Your task to perform on an android device: What's the weather today? Image 0: 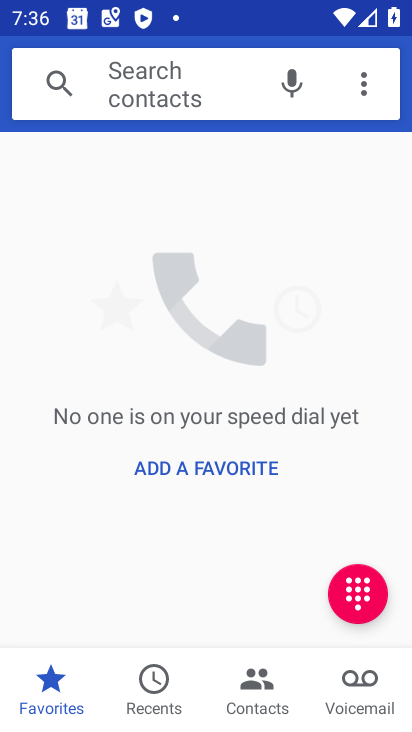
Step 0: press home button
Your task to perform on an android device: What's the weather today? Image 1: 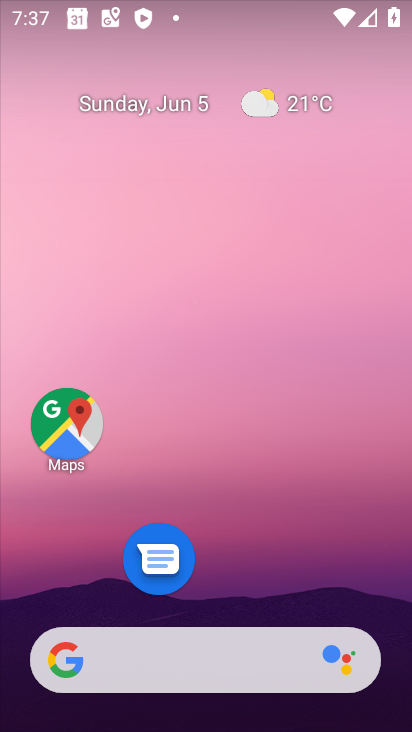
Step 1: click (99, 681)
Your task to perform on an android device: What's the weather today? Image 2: 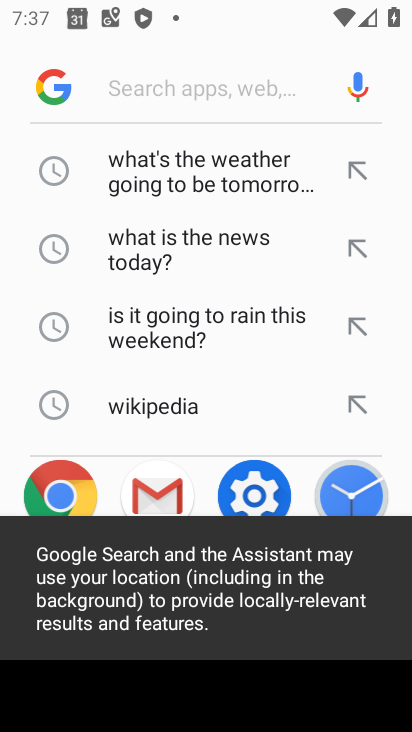
Step 2: click (178, 178)
Your task to perform on an android device: What's the weather today? Image 3: 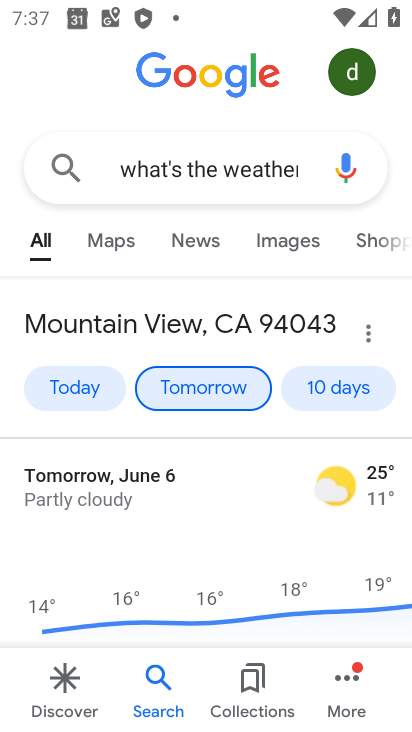
Step 3: click (69, 397)
Your task to perform on an android device: What's the weather today? Image 4: 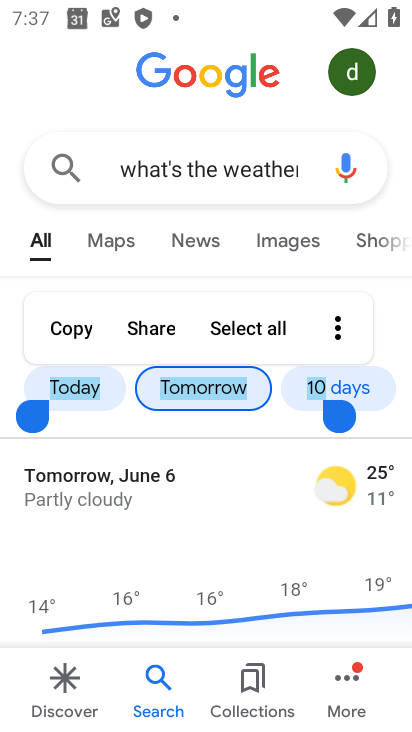
Step 4: click (88, 401)
Your task to perform on an android device: What's the weather today? Image 5: 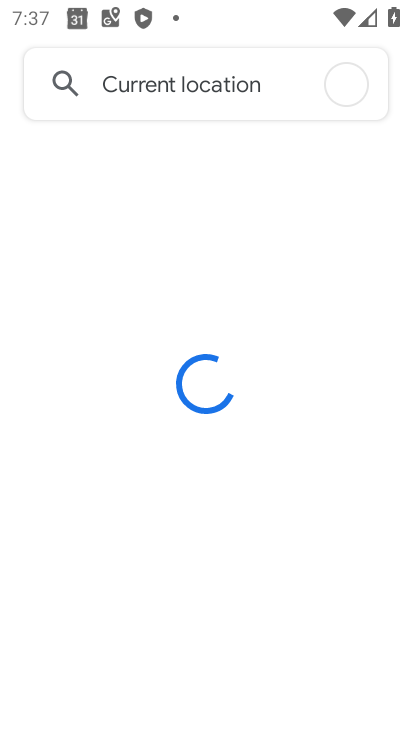
Step 5: click (88, 401)
Your task to perform on an android device: What's the weather today? Image 6: 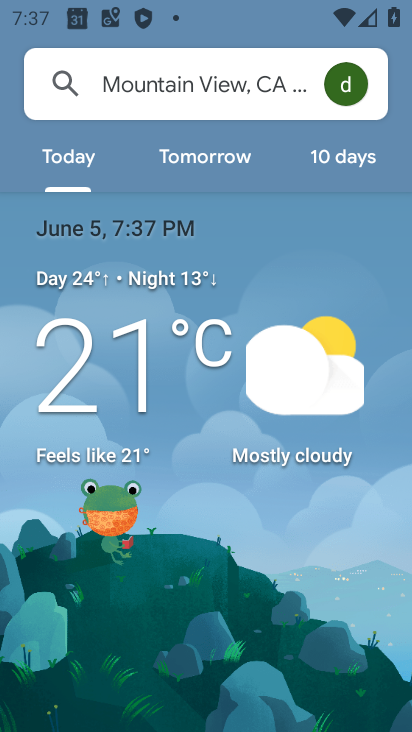
Step 6: task complete